Your task to perform on an android device: Open Google Chrome and click the shortcut for Amazon.com Image 0: 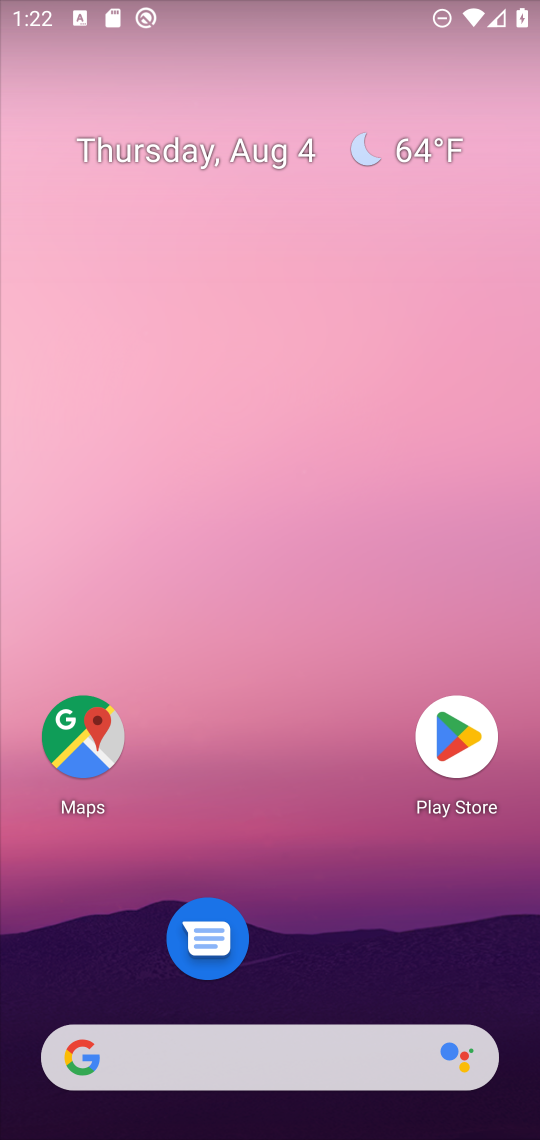
Step 0: drag from (314, 1109) to (406, 232)
Your task to perform on an android device: Open Google Chrome and click the shortcut for Amazon.com Image 1: 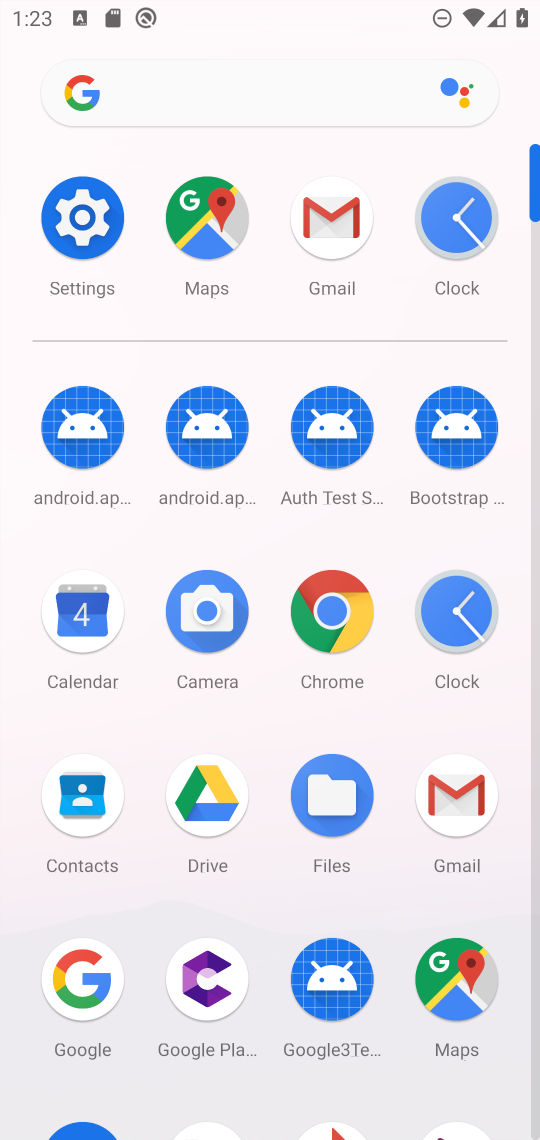
Step 1: click (353, 608)
Your task to perform on an android device: Open Google Chrome and click the shortcut for Amazon.com Image 2: 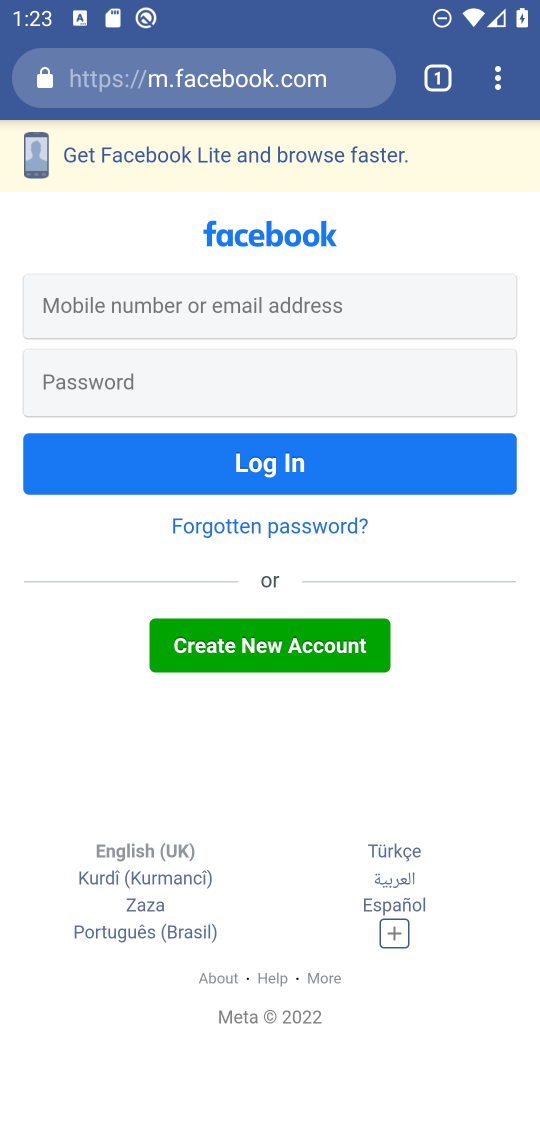
Step 2: click (491, 88)
Your task to perform on an android device: Open Google Chrome and click the shortcut for Amazon.com Image 3: 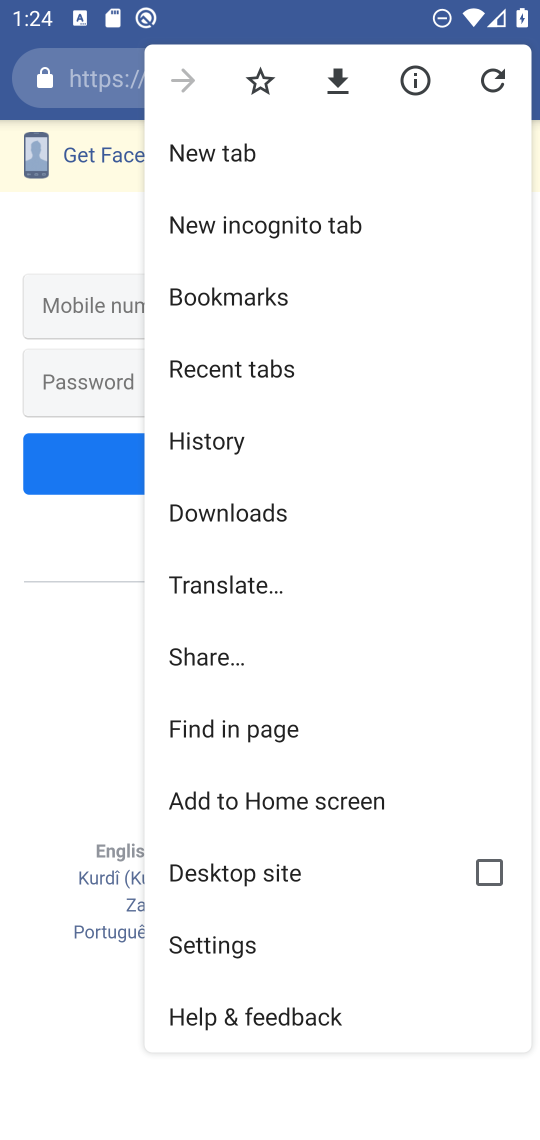
Step 3: click (106, 634)
Your task to perform on an android device: Open Google Chrome and click the shortcut for Amazon.com Image 4: 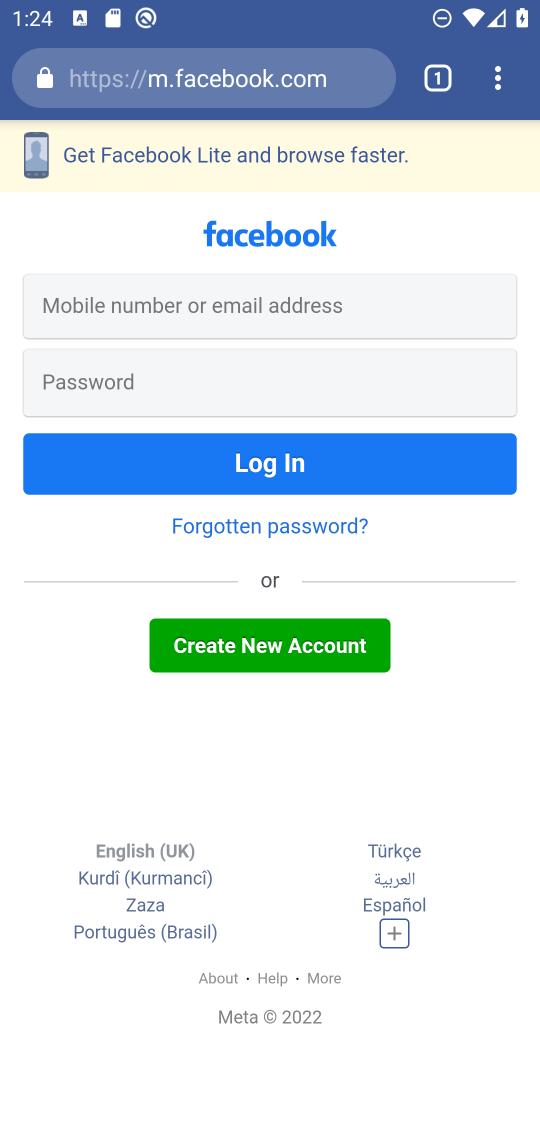
Step 4: click (501, 69)
Your task to perform on an android device: Open Google Chrome and click the shortcut for Amazon.com Image 5: 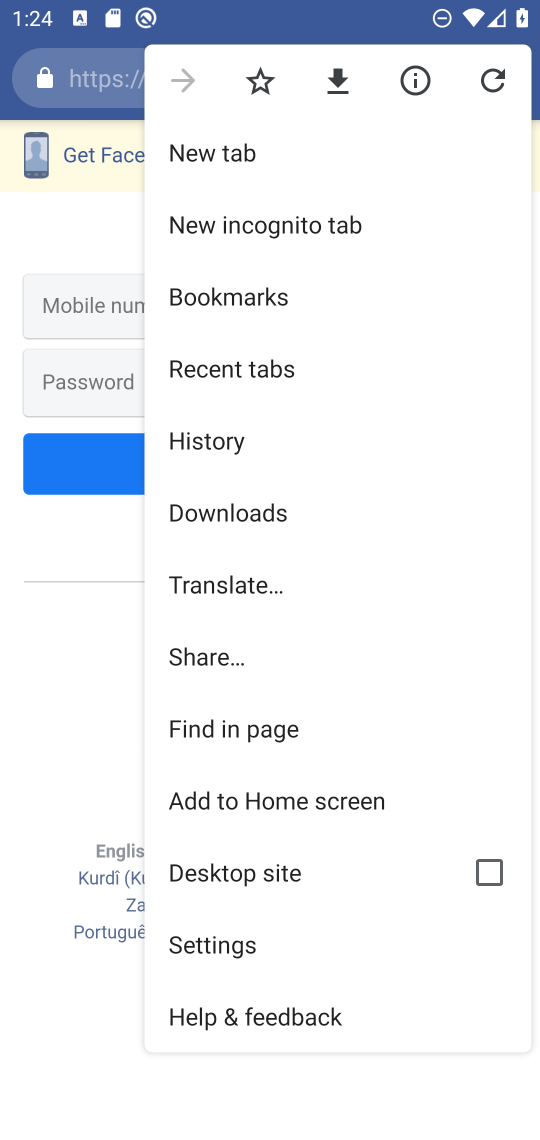
Step 5: click (228, 152)
Your task to perform on an android device: Open Google Chrome and click the shortcut for Amazon.com Image 6: 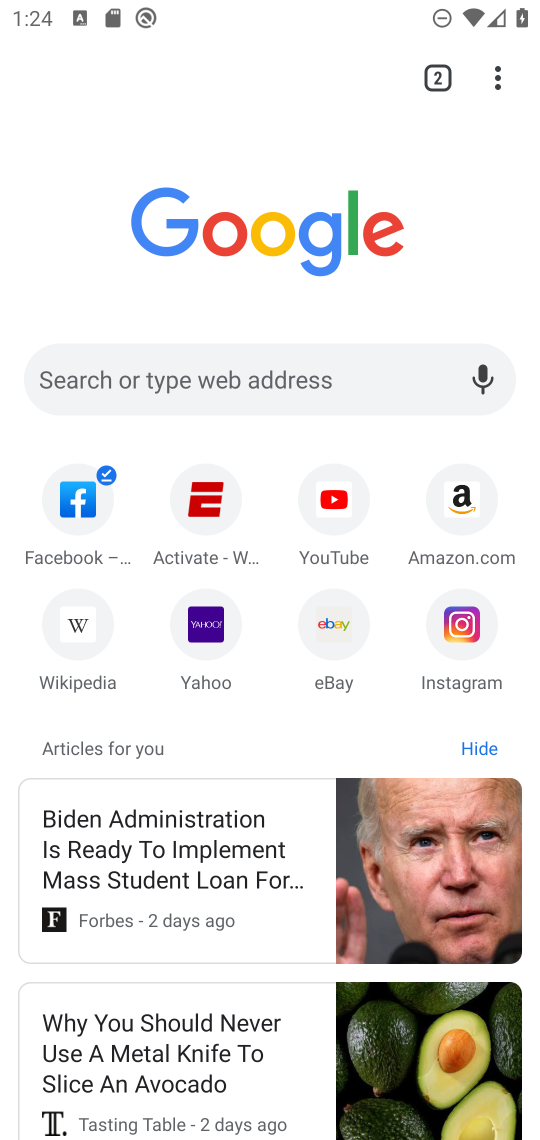
Step 6: click (456, 489)
Your task to perform on an android device: Open Google Chrome and click the shortcut for Amazon.com Image 7: 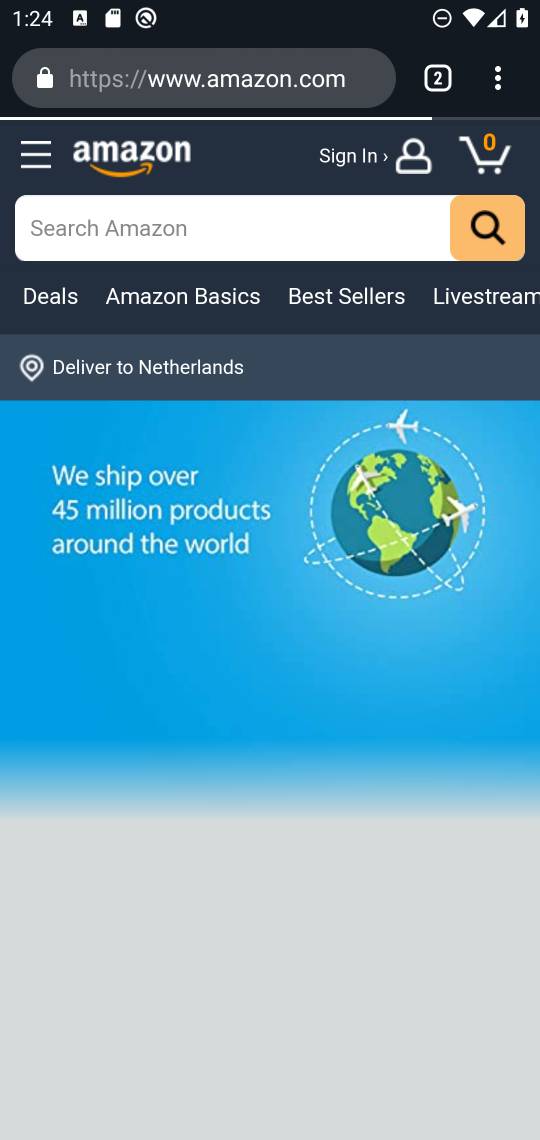
Step 7: task complete